Your task to perform on an android device: snooze an email in the gmail app Image 0: 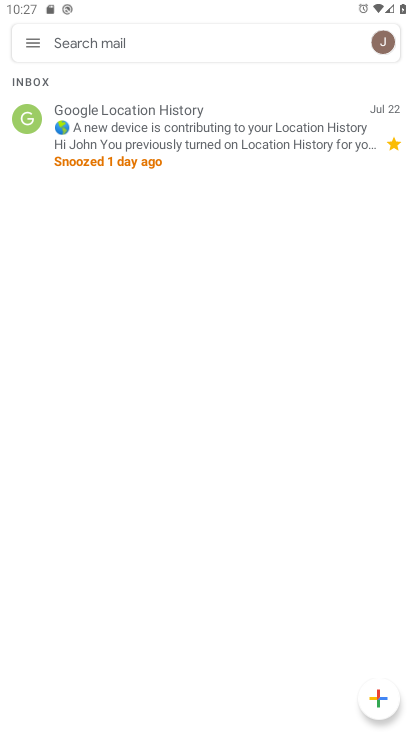
Step 0: click (32, 32)
Your task to perform on an android device: snooze an email in the gmail app Image 1: 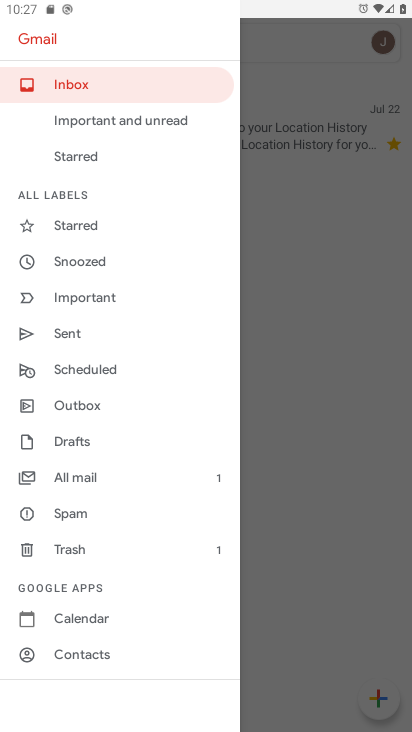
Step 1: click (83, 485)
Your task to perform on an android device: snooze an email in the gmail app Image 2: 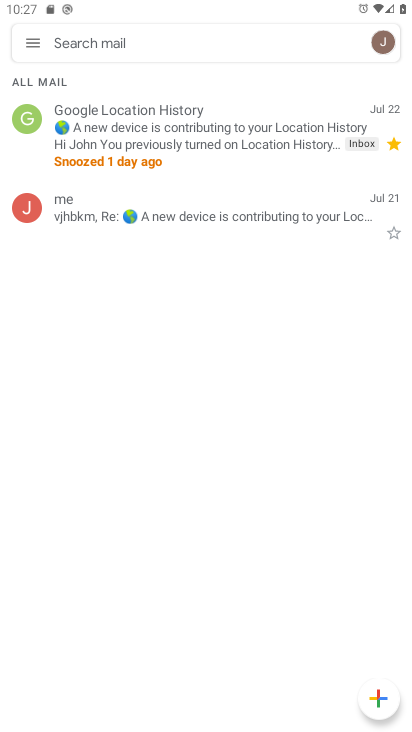
Step 2: click (87, 174)
Your task to perform on an android device: snooze an email in the gmail app Image 3: 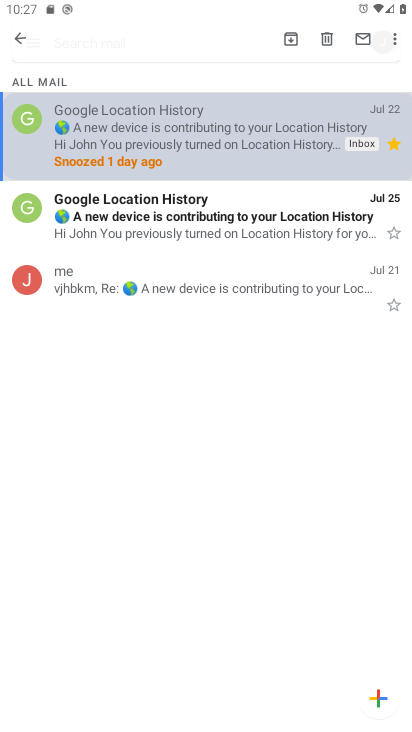
Step 3: drag from (181, 278) to (186, 399)
Your task to perform on an android device: snooze an email in the gmail app Image 4: 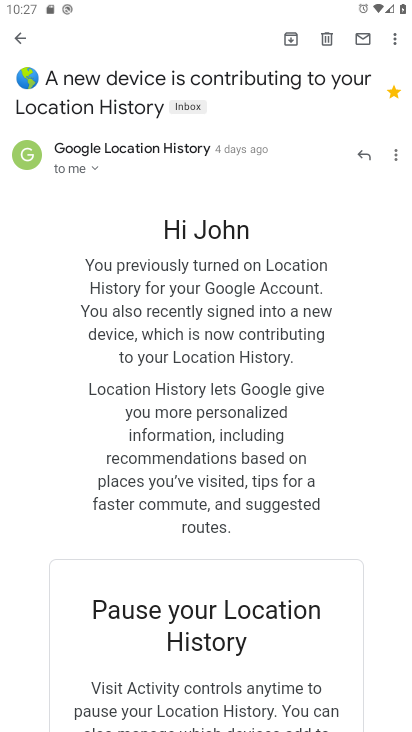
Step 4: click (23, 29)
Your task to perform on an android device: snooze an email in the gmail app Image 5: 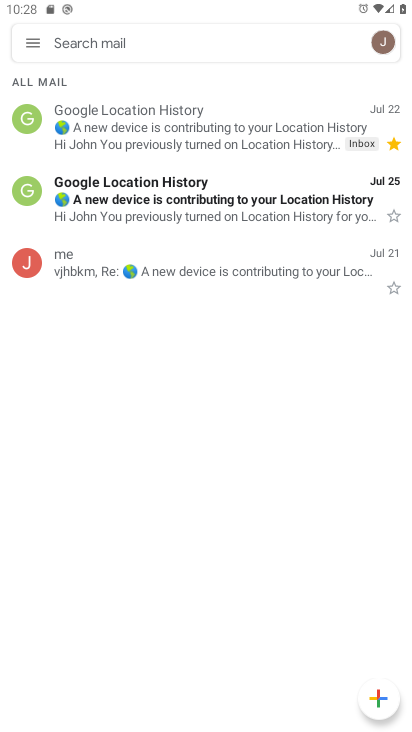
Step 5: click (28, 201)
Your task to perform on an android device: snooze an email in the gmail app Image 6: 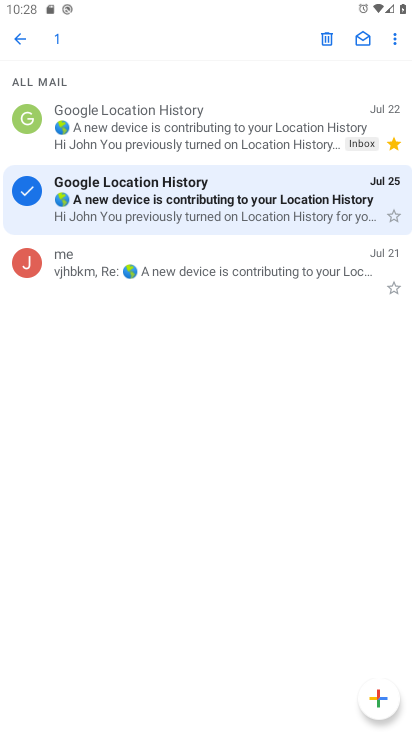
Step 6: click (386, 33)
Your task to perform on an android device: snooze an email in the gmail app Image 7: 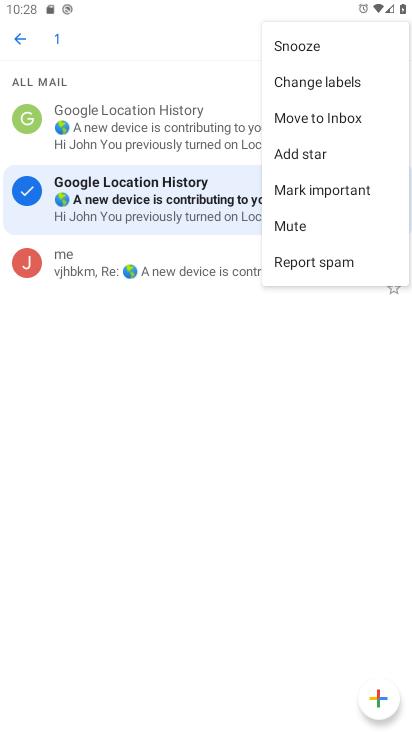
Step 7: click (298, 33)
Your task to perform on an android device: snooze an email in the gmail app Image 8: 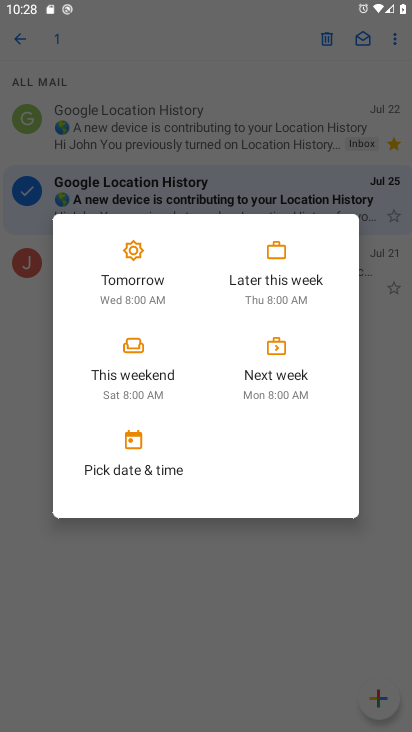
Step 8: click (142, 274)
Your task to perform on an android device: snooze an email in the gmail app Image 9: 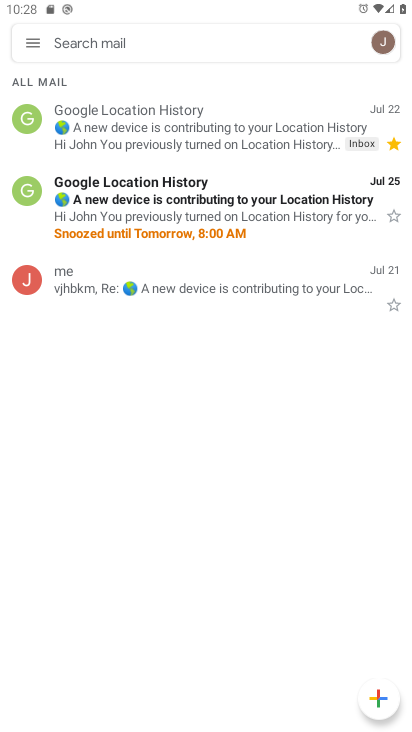
Step 9: task complete